Your task to perform on an android device: open a bookmark in the chrome app Image 0: 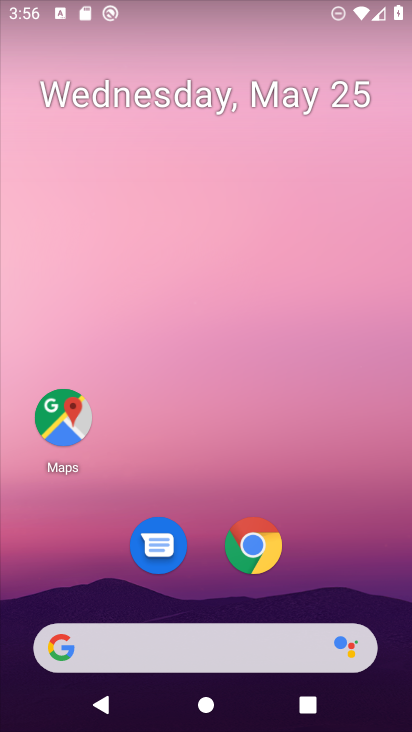
Step 0: click (244, 559)
Your task to perform on an android device: open a bookmark in the chrome app Image 1: 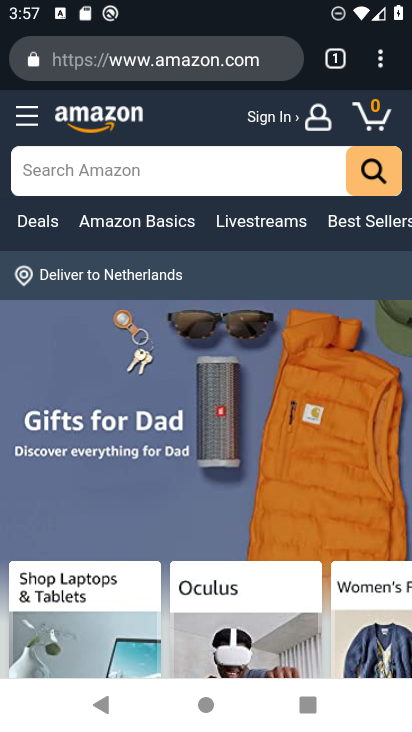
Step 1: task complete